Your task to perform on an android device: toggle data saver in the chrome app Image 0: 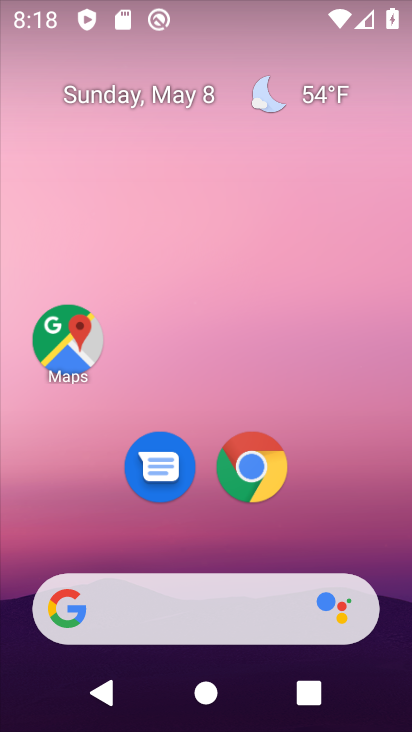
Step 0: click (250, 465)
Your task to perform on an android device: toggle data saver in the chrome app Image 1: 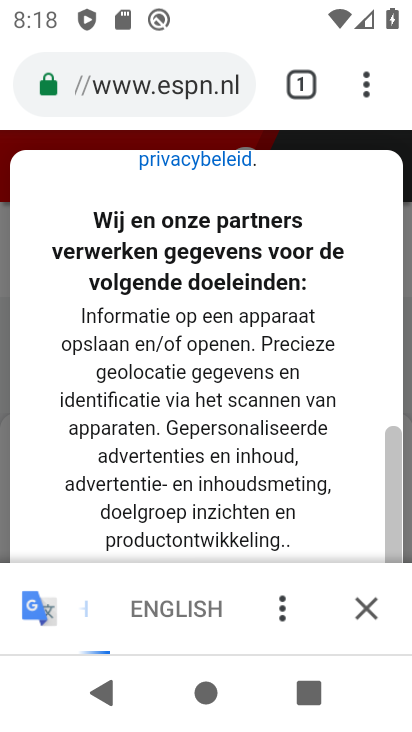
Step 1: click (364, 605)
Your task to perform on an android device: toggle data saver in the chrome app Image 2: 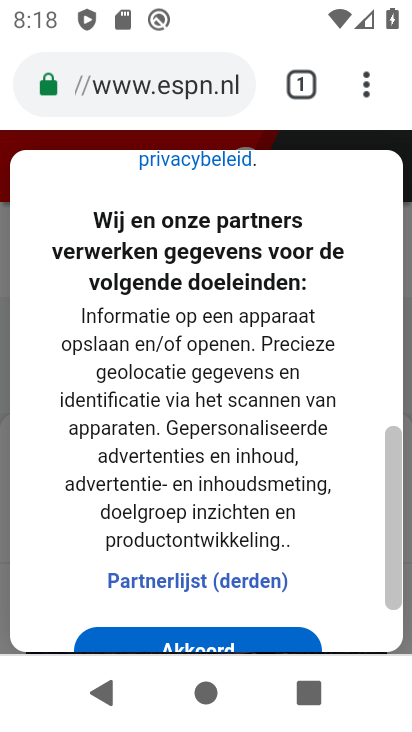
Step 2: click (361, 88)
Your task to perform on an android device: toggle data saver in the chrome app Image 3: 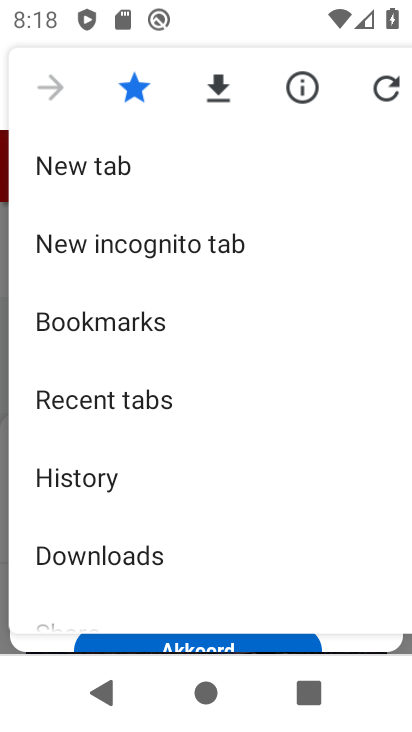
Step 3: drag from (187, 554) to (291, 140)
Your task to perform on an android device: toggle data saver in the chrome app Image 4: 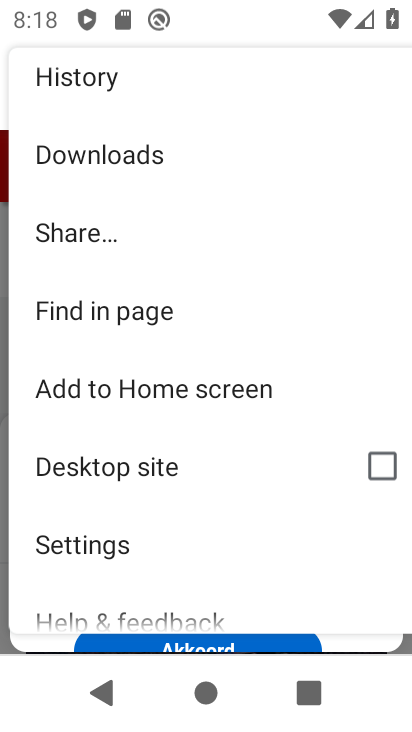
Step 4: click (73, 548)
Your task to perform on an android device: toggle data saver in the chrome app Image 5: 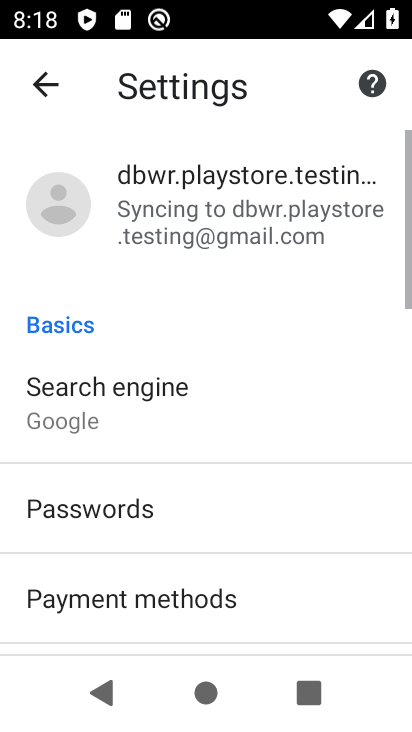
Step 5: drag from (283, 579) to (215, 71)
Your task to perform on an android device: toggle data saver in the chrome app Image 6: 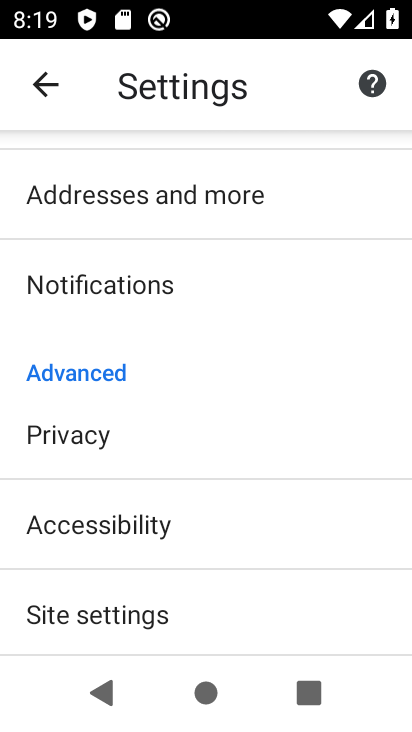
Step 6: drag from (239, 610) to (307, 224)
Your task to perform on an android device: toggle data saver in the chrome app Image 7: 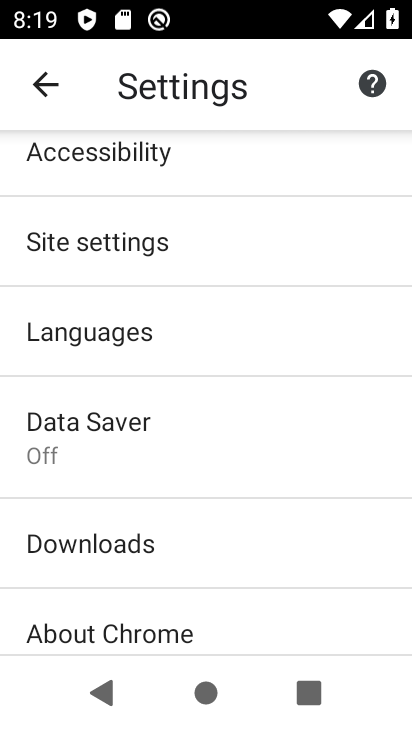
Step 7: click (34, 423)
Your task to perform on an android device: toggle data saver in the chrome app Image 8: 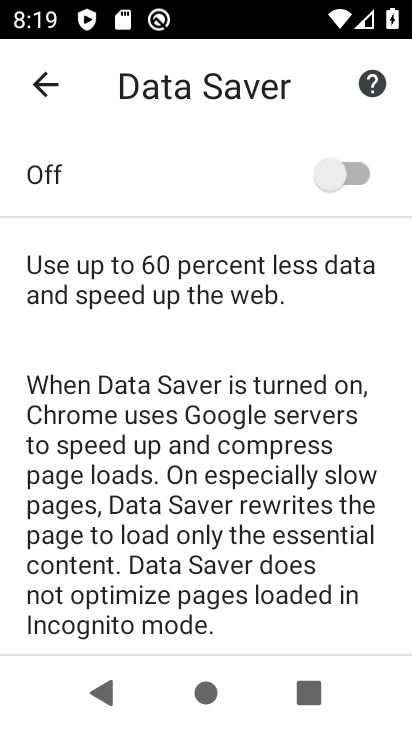
Step 8: click (357, 181)
Your task to perform on an android device: toggle data saver in the chrome app Image 9: 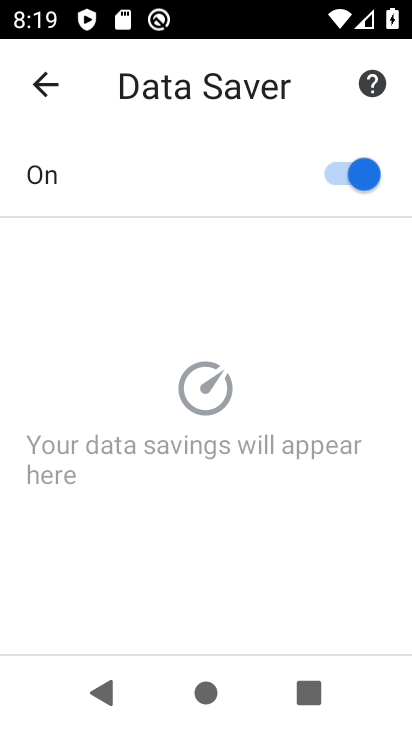
Step 9: task complete